Your task to perform on an android device: Check the news Image 0: 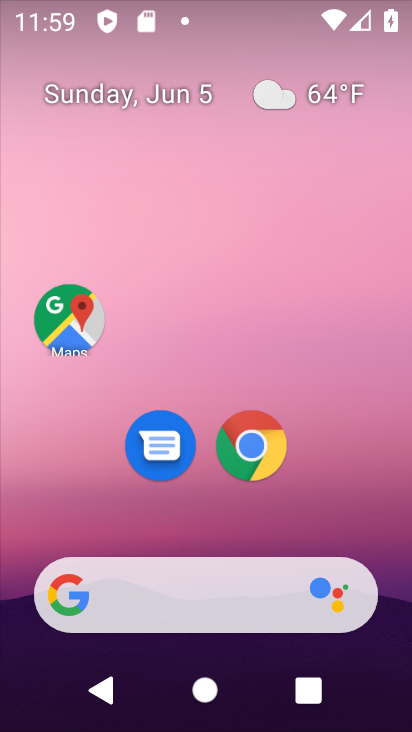
Step 0: drag from (281, 221) to (277, 87)
Your task to perform on an android device: Check the news Image 1: 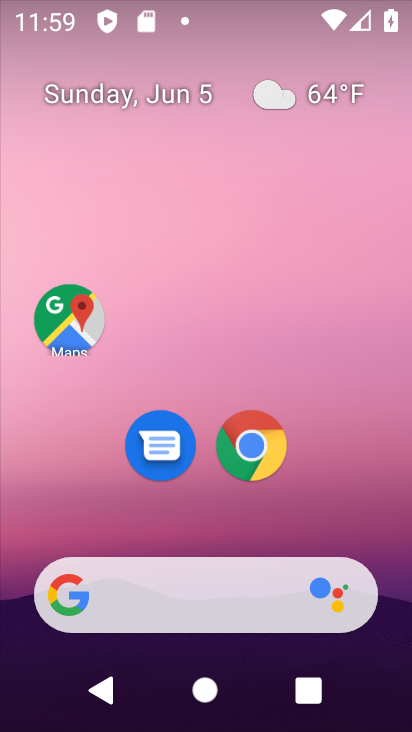
Step 1: drag from (244, 602) to (264, 76)
Your task to perform on an android device: Check the news Image 2: 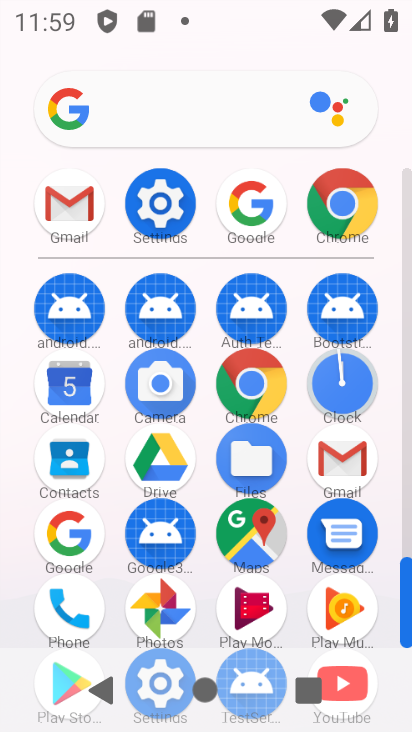
Step 2: click (260, 387)
Your task to perform on an android device: Check the news Image 3: 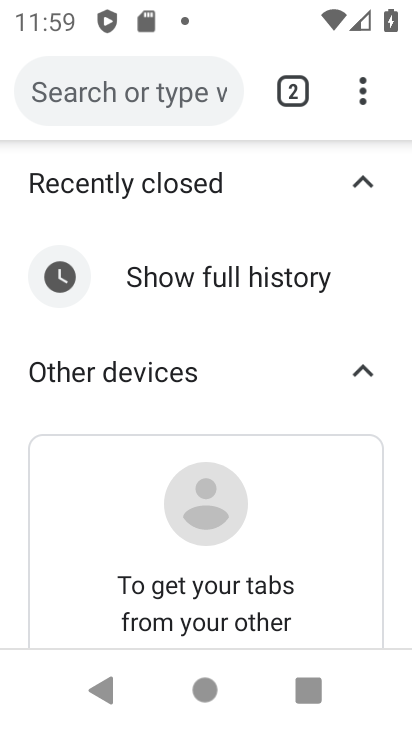
Step 3: click (171, 103)
Your task to perform on an android device: Check the news Image 4: 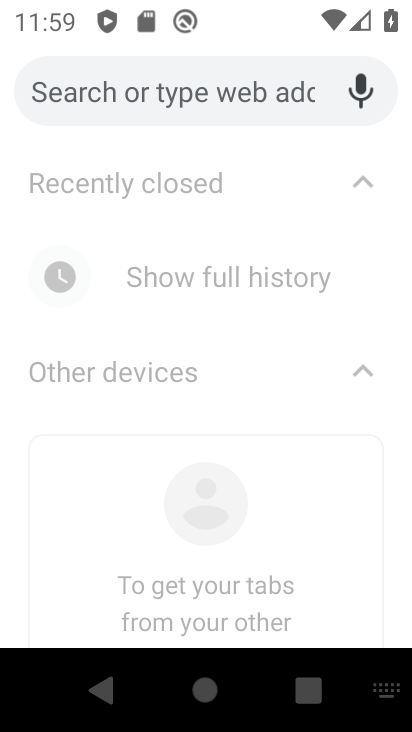
Step 4: type "check the news"
Your task to perform on an android device: Check the news Image 5: 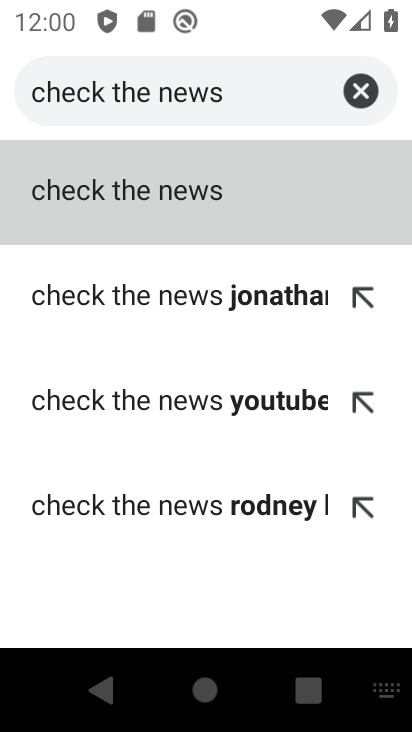
Step 5: click (169, 191)
Your task to perform on an android device: Check the news Image 6: 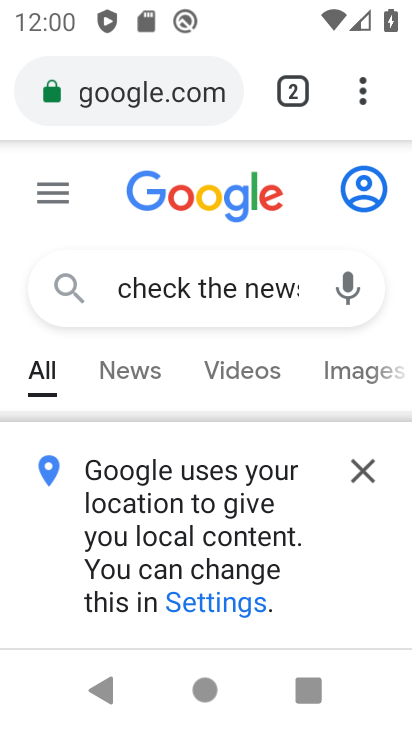
Step 6: task complete